Your task to perform on an android device: Open the map Image 0: 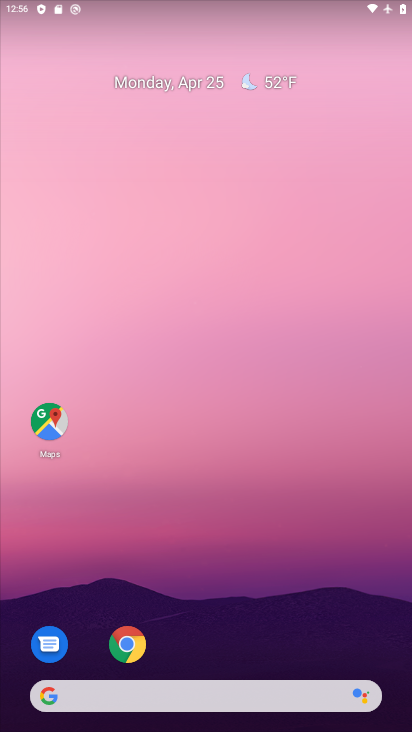
Step 0: click (56, 424)
Your task to perform on an android device: Open the map Image 1: 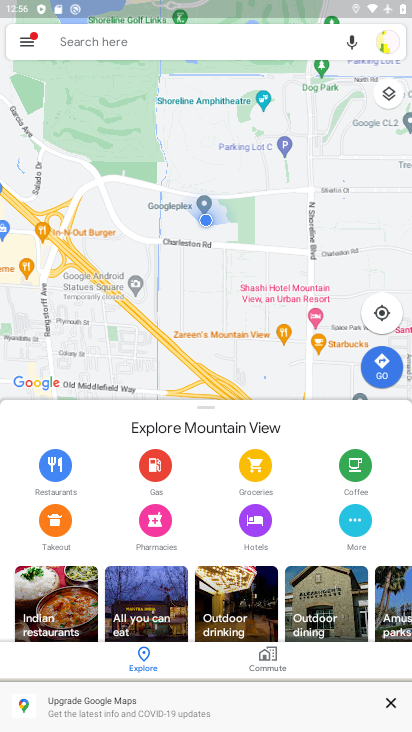
Step 1: task complete